Your task to perform on an android device: check google app version Image 0: 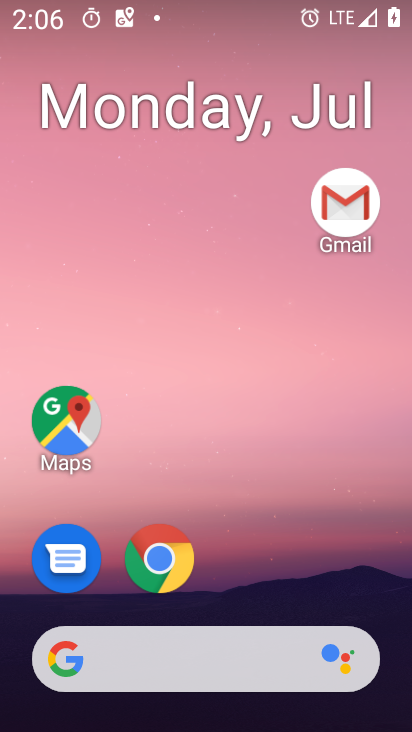
Step 0: drag from (318, 525) to (335, 145)
Your task to perform on an android device: check google app version Image 1: 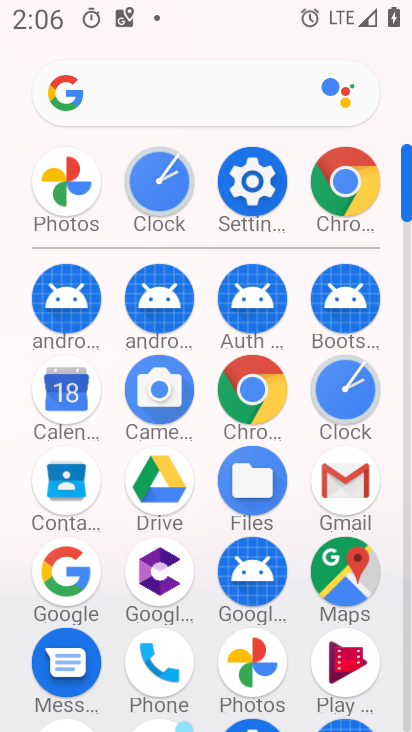
Step 1: click (78, 571)
Your task to perform on an android device: check google app version Image 2: 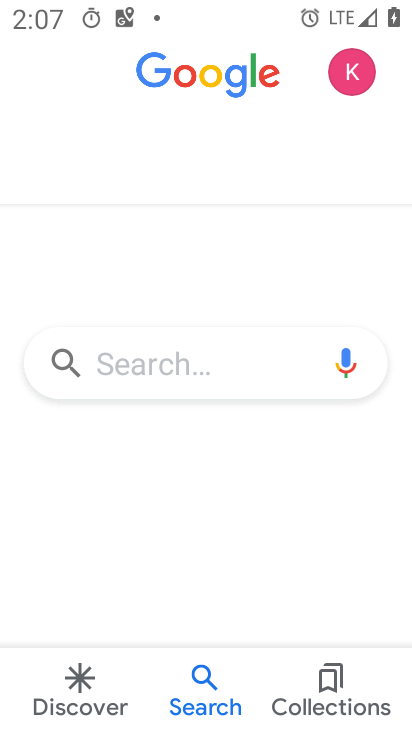
Step 2: click (355, 77)
Your task to perform on an android device: check google app version Image 3: 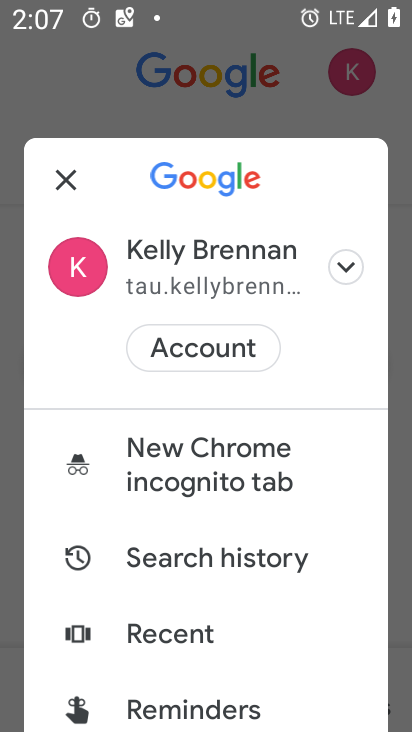
Step 3: drag from (308, 592) to (320, 451)
Your task to perform on an android device: check google app version Image 4: 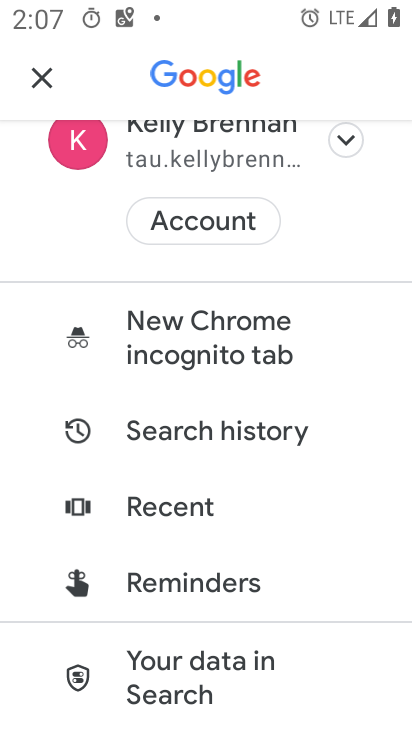
Step 4: drag from (339, 539) to (345, 390)
Your task to perform on an android device: check google app version Image 5: 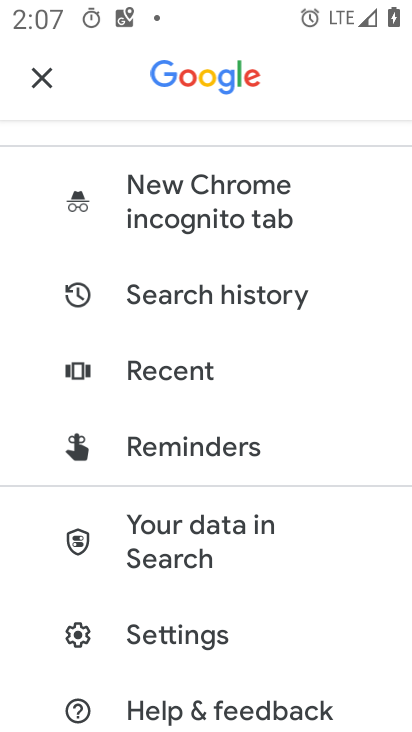
Step 5: drag from (334, 539) to (332, 359)
Your task to perform on an android device: check google app version Image 6: 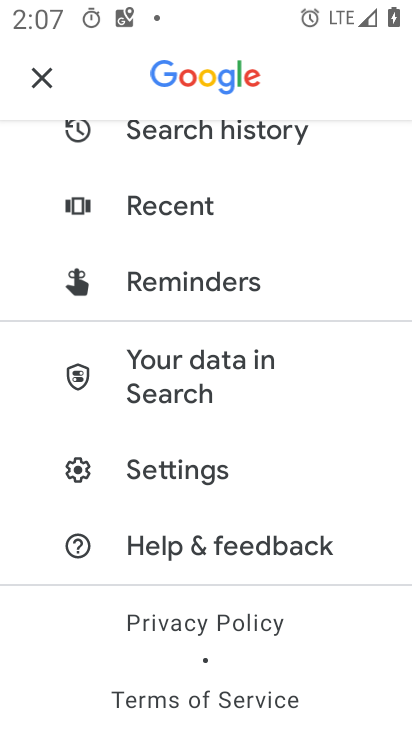
Step 6: click (255, 462)
Your task to perform on an android device: check google app version Image 7: 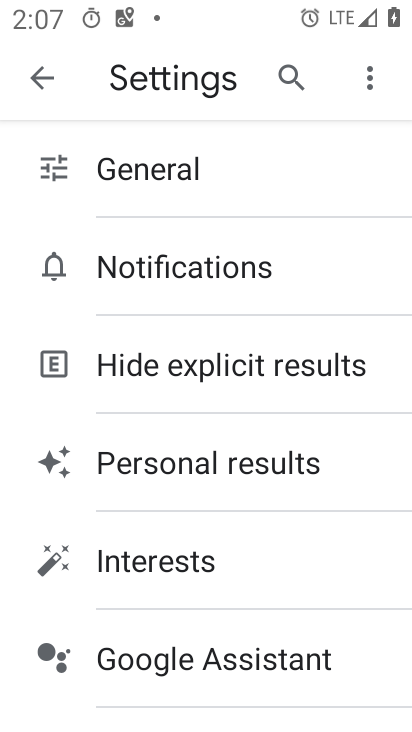
Step 7: drag from (299, 531) to (299, 460)
Your task to perform on an android device: check google app version Image 8: 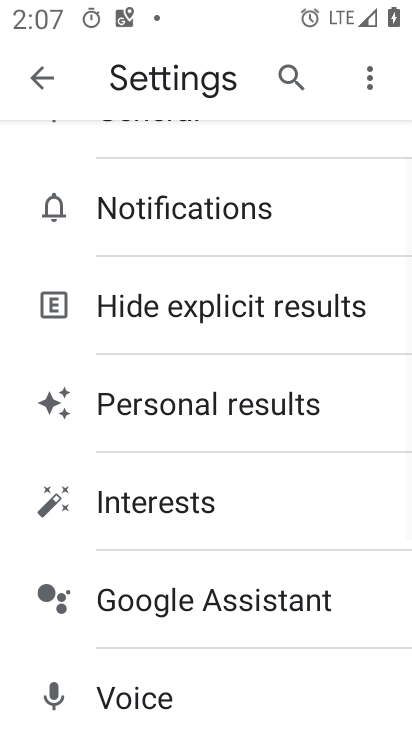
Step 8: drag from (310, 535) to (317, 427)
Your task to perform on an android device: check google app version Image 9: 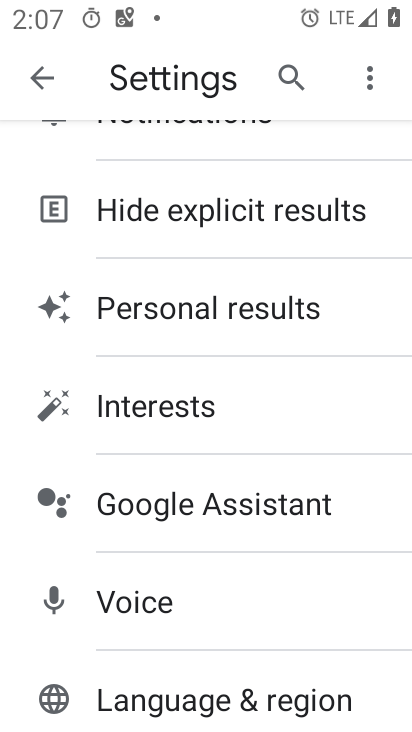
Step 9: drag from (293, 581) to (304, 432)
Your task to perform on an android device: check google app version Image 10: 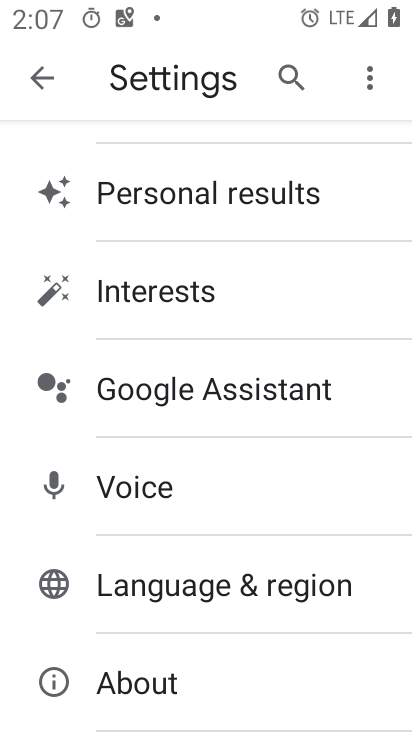
Step 10: drag from (285, 586) to (280, 467)
Your task to perform on an android device: check google app version Image 11: 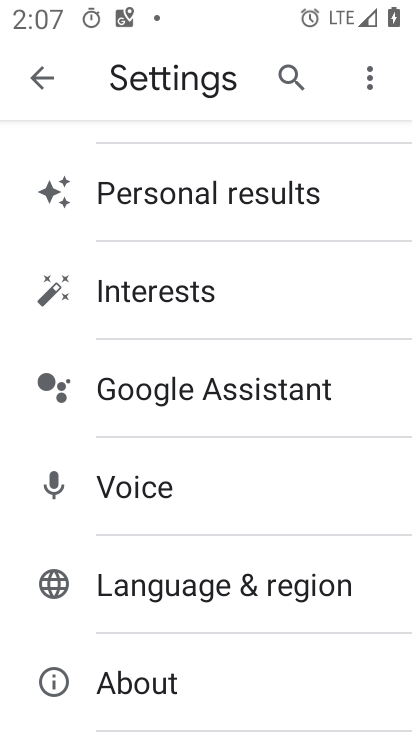
Step 11: click (270, 694)
Your task to perform on an android device: check google app version Image 12: 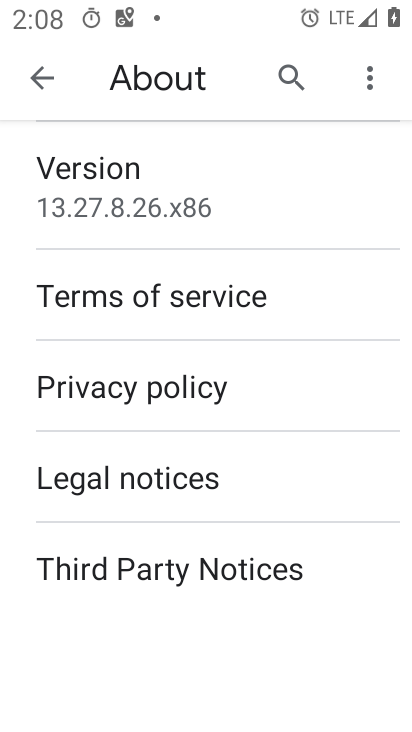
Step 12: task complete